Your task to perform on an android device: toggle priority inbox in the gmail app Image 0: 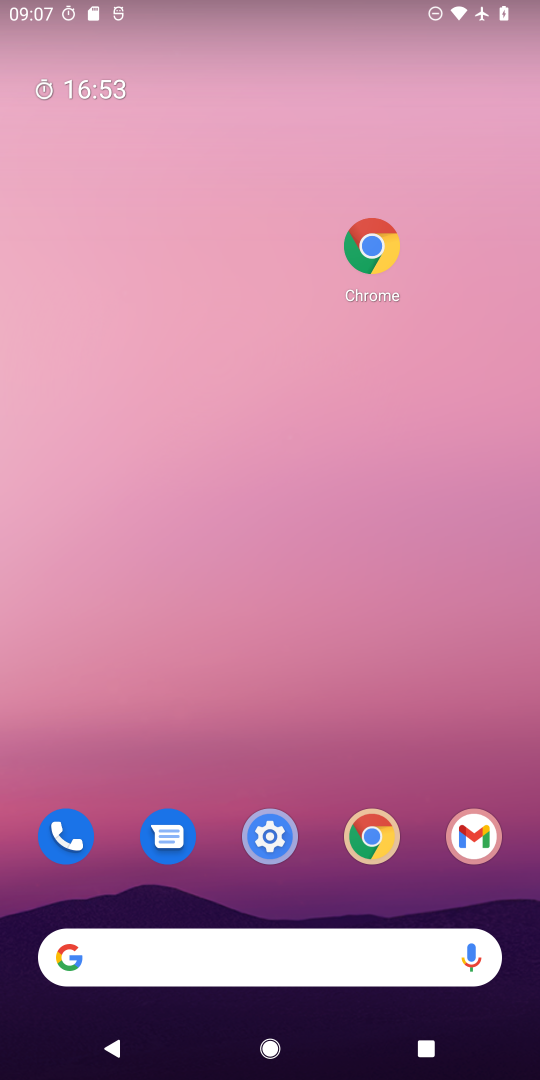
Step 0: drag from (248, 566) to (239, 370)
Your task to perform on an android device: toggle priority inbox in the gmail app Image 1: 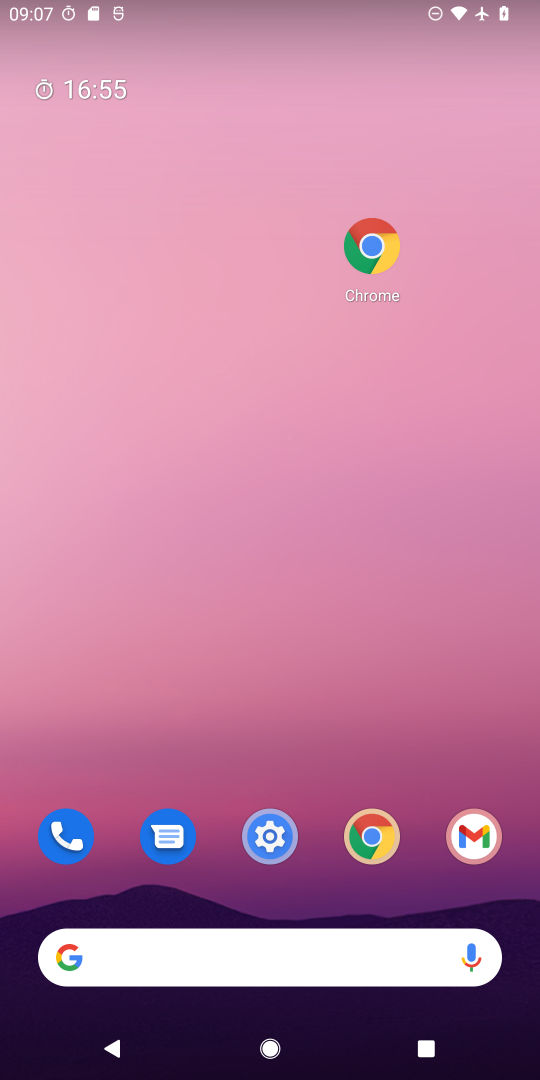
Step 1: drag from (289, 791) to (270, 240)
Your task to perform on an android device: toggle priority inbox in the gmail app Image 2: 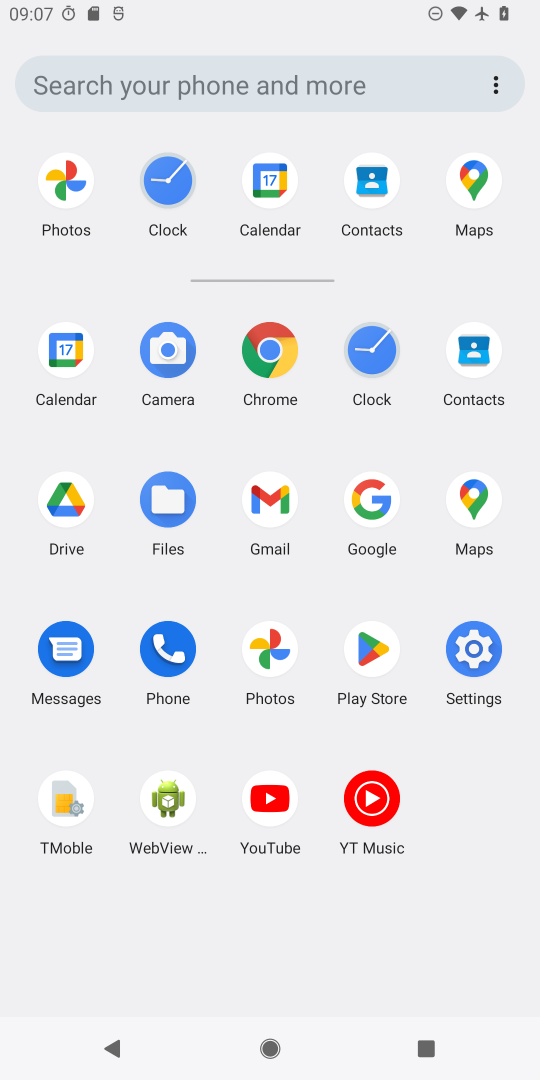
Step 2: click (266, 505)
Your task to perform on an android device: toggle priority inbox in the gmail app Image 3: 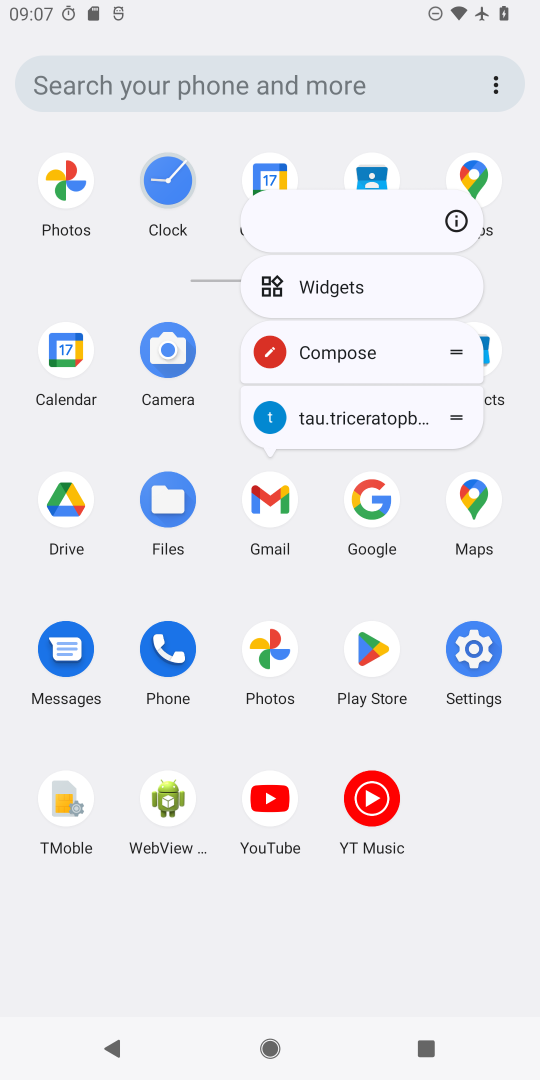
Step 3: click (278, 508)
Your task to perform on an android device: toggle priority inbox in the gmail app Image 4: 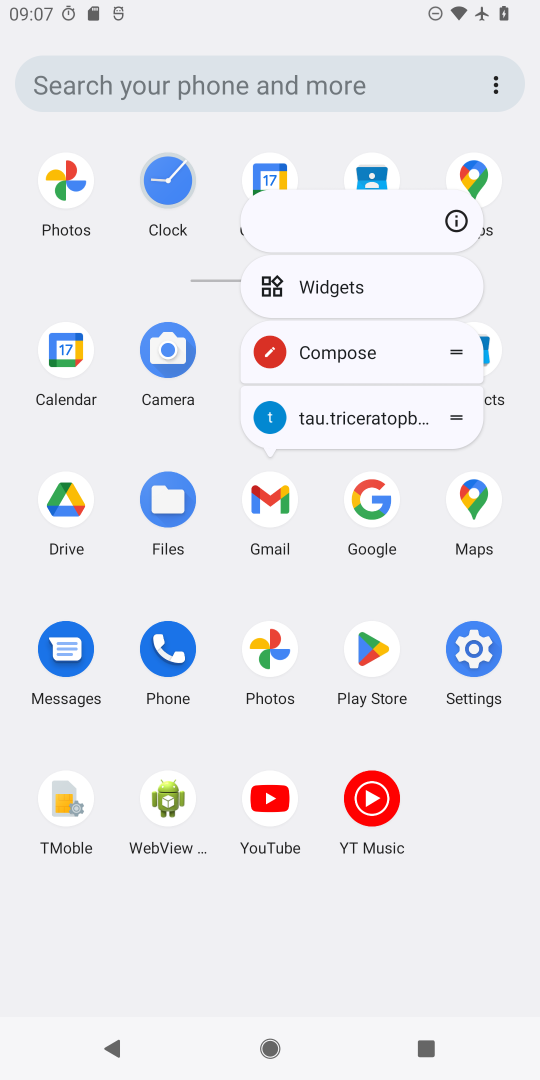
Step 4: click (278, 508)
Your task to perform on an android device: toggle priority inbox in the gmail app Image 5: 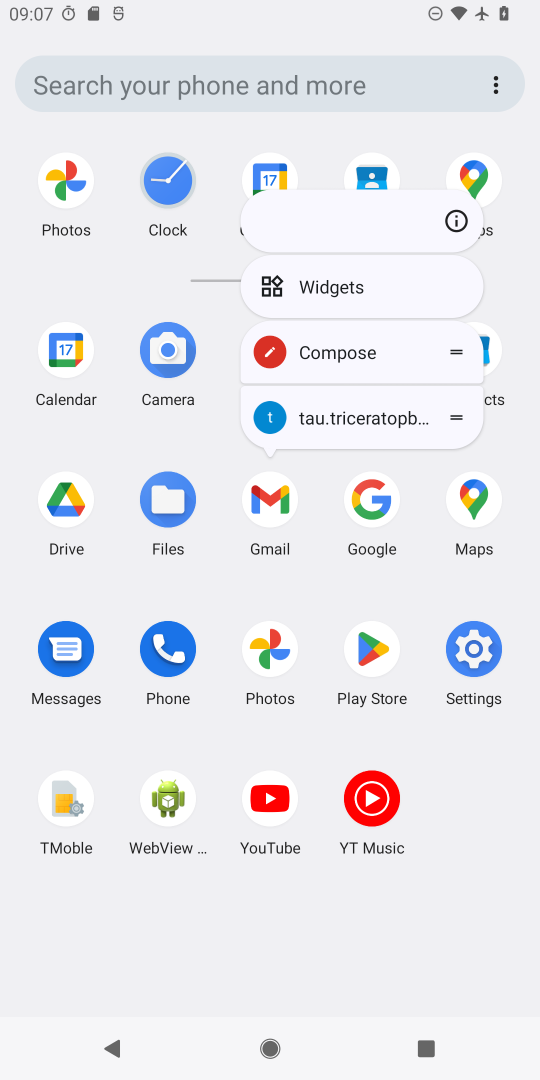
Step 5: click (278, 508)
Your task to perform on an android device: toggle priority inbox in the gmail app Image 6: 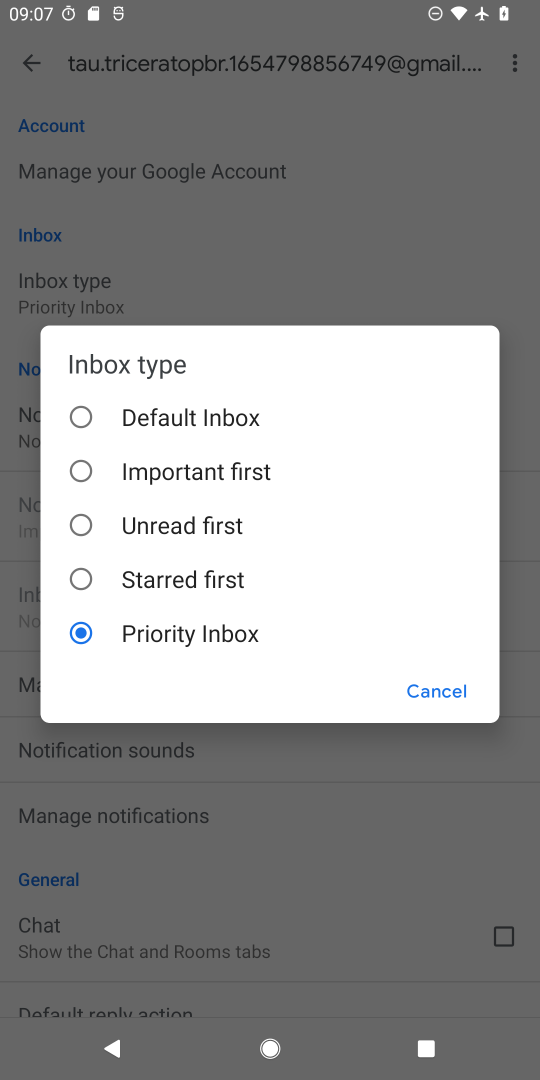
Step 6: click (201, 428)
Your task to perform on an android device: toggle priority inbox in the gmail app Image 7: 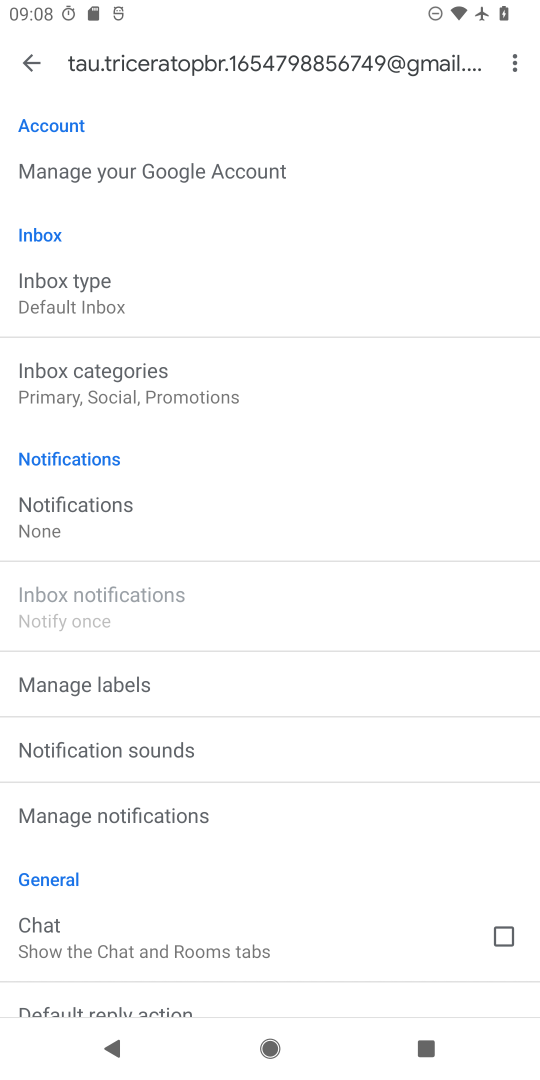
Step 7: task complete